Your task to perform on an android device: What is the capital of Germany? Image 0: 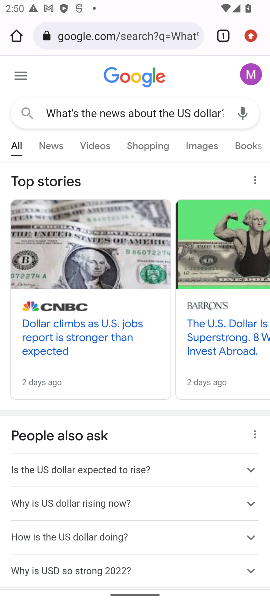
Step 0: task complete